Your task to perform on an android device: empty trash in the gmail app Image 0: 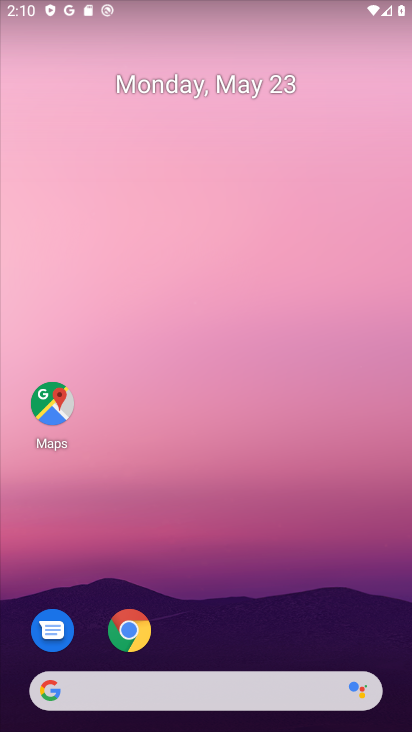
Step 0: drag from (326, 592) to (325, 105)
Your task to perform on an android device: empty trash in the gmail app Image 1: 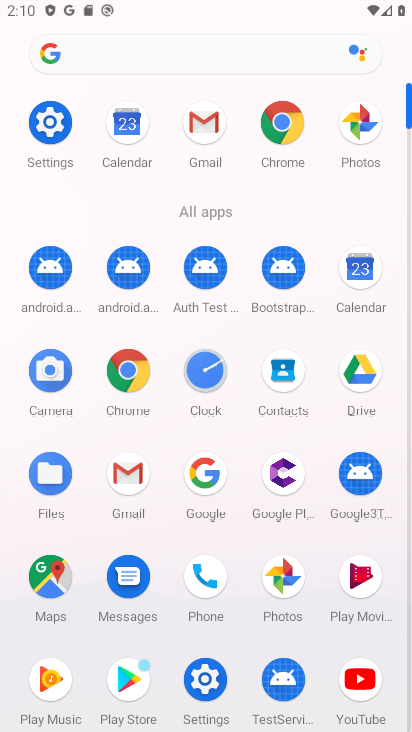
Step 1: click (206, 119)
Your task to perform on an android device: empty trash in the gmail app Image 2: 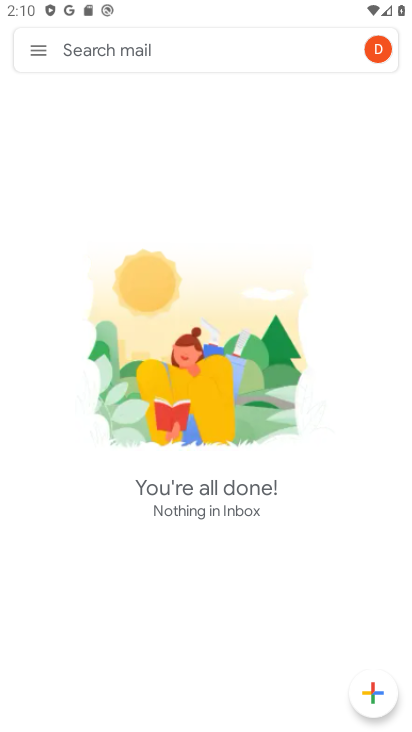
Step 2: click (42, 56)
Your task to perform on an android device: empty trash in the gmail app Image 3: 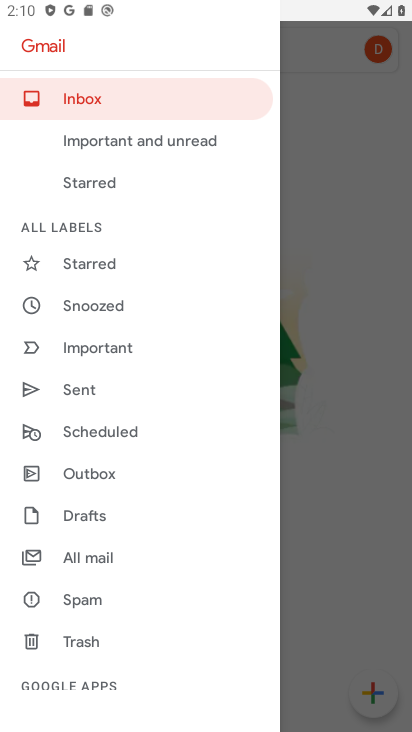
Step 3: click (102, 638)
Your task to perform on an android device: empty trash in the gmail app Image 4: 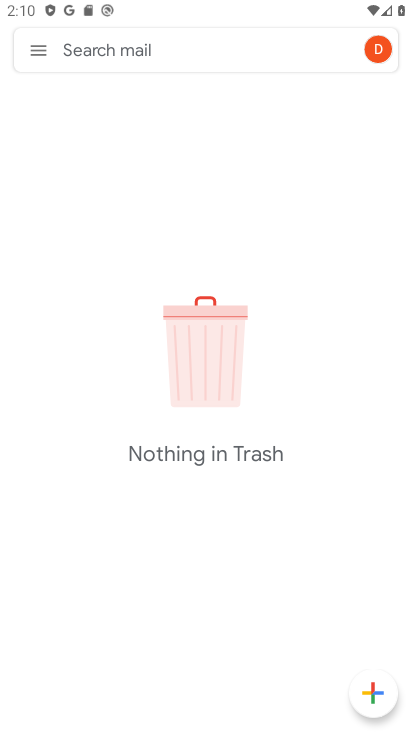
Step 4: task complete